Your task to perform on an android device: turn notification dots off Image 0: 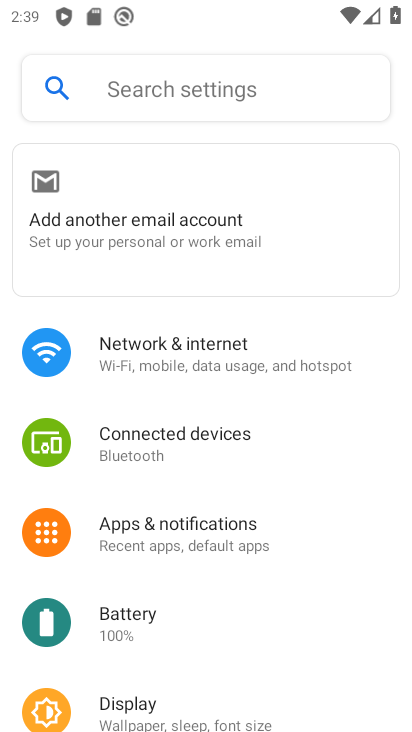
Step 0: press home button
Your task to perform on an android device: turn notification dots off Image 1: 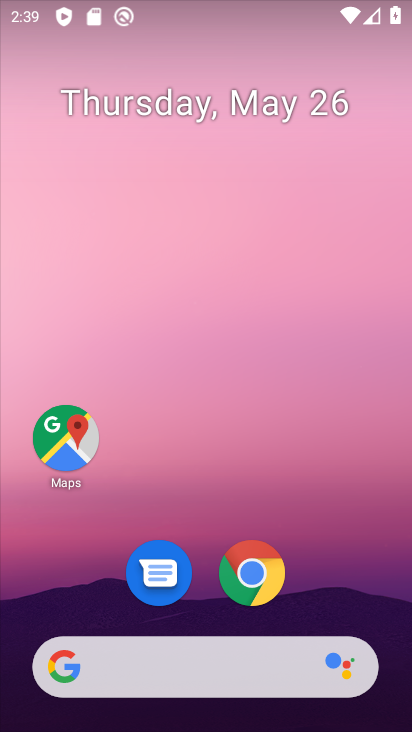
Step 1: drag from (222, 674) to (254, 242)
Your task to perform on an android device: turn notification dots off Image 2: 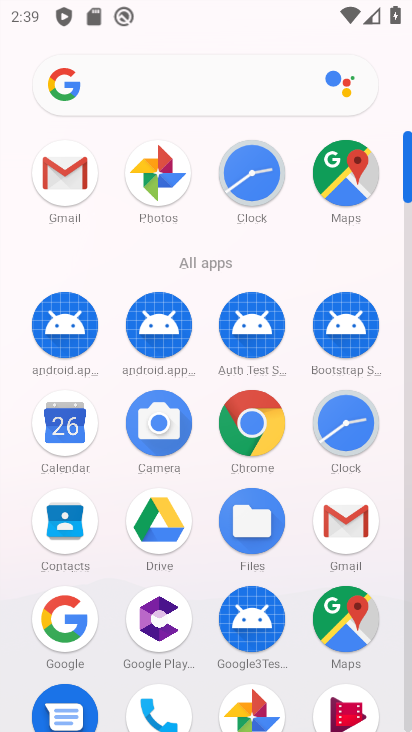
Step 2: drag from (198, 573) to (250, 32)
Your task to perform on an android device: turn notification dots off Image 3: 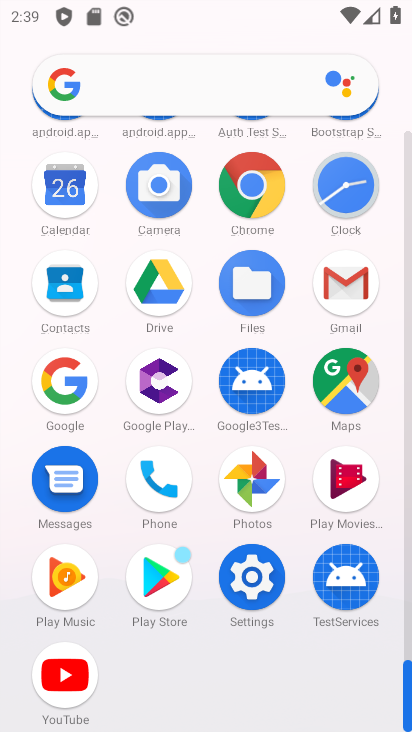
Step 3: click (243, 576)
Your task to perform on an android device: turn notification dots off Image 4: 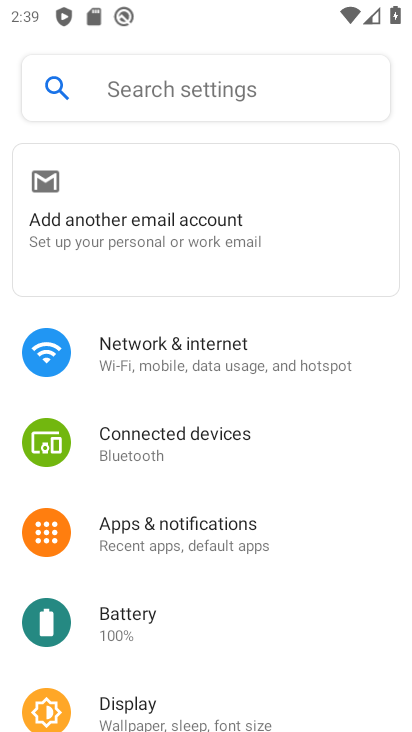
Step 4: click (212, 535)
Your task to perform on an android device: turn notification dots off Image 5: 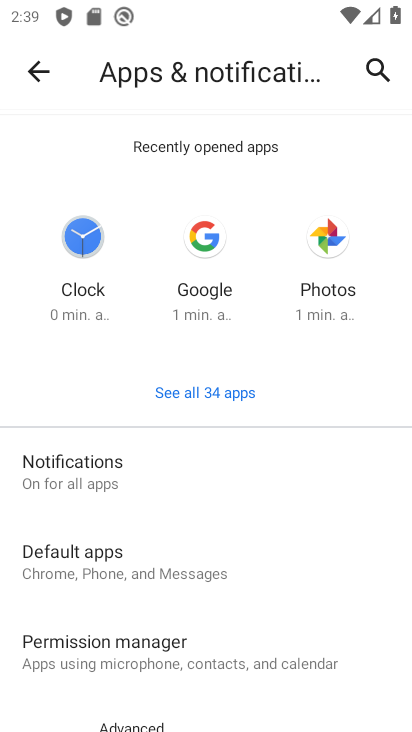
Step 5: click (171, 461)
Your task to perform on an android device: turn notification dots off Image 6: 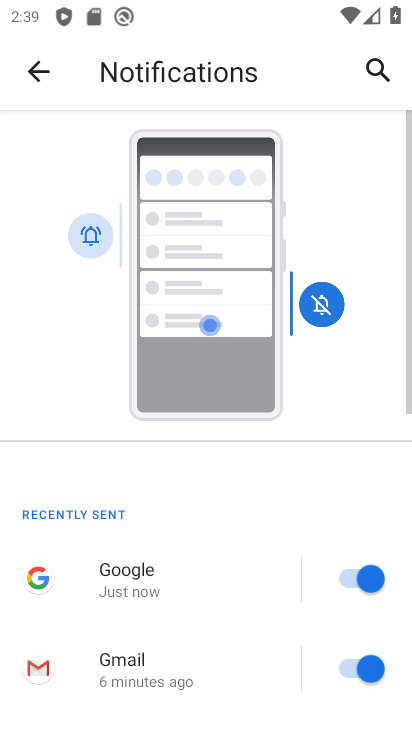
Step 6: drag from (262, 493) to (248, 146)
Your task to perform on an android device: turn notification dots off Image 7: 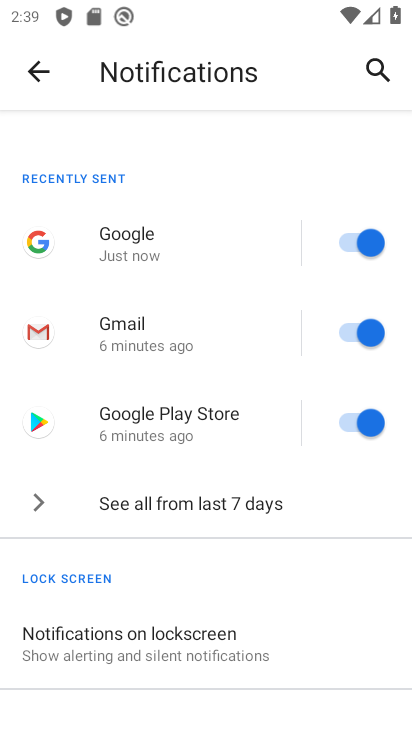
Step 7: drag from (177, 626) to (255, 217)
Your task to perform on an android device: turn notification dots off Image 8: 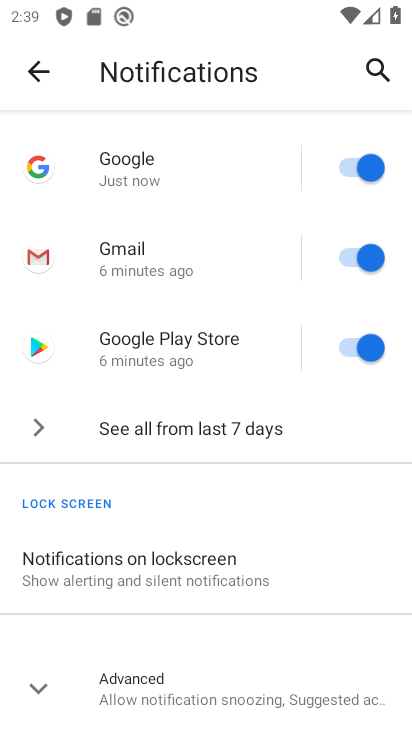
Step 8: click (140, 713)
Your task to perform on an android device: turn notification dots off Image 9: 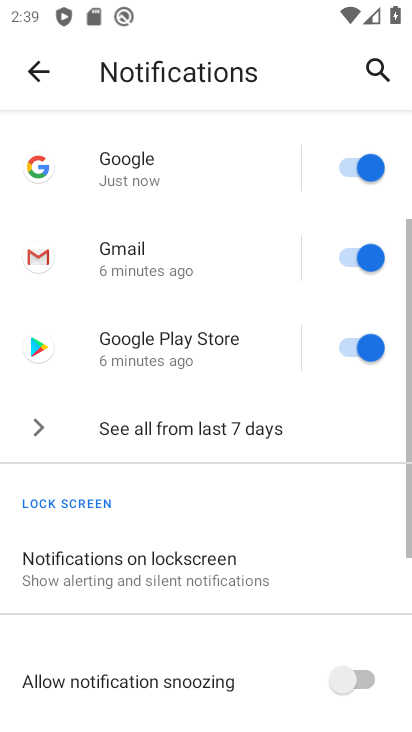
Step 9: drag from (208, 660) to (274, 273)
Your task to perform on an android device: turn notification dots off Image 10: 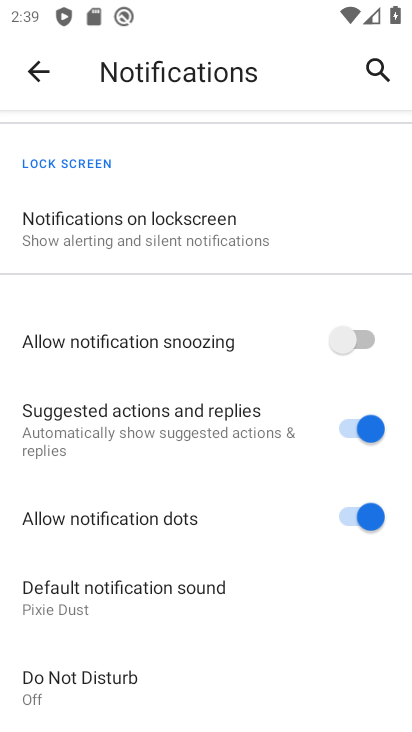
Step 10: click (368, 511)
Your task to perform on an android device: turn notification dots off Image 11: 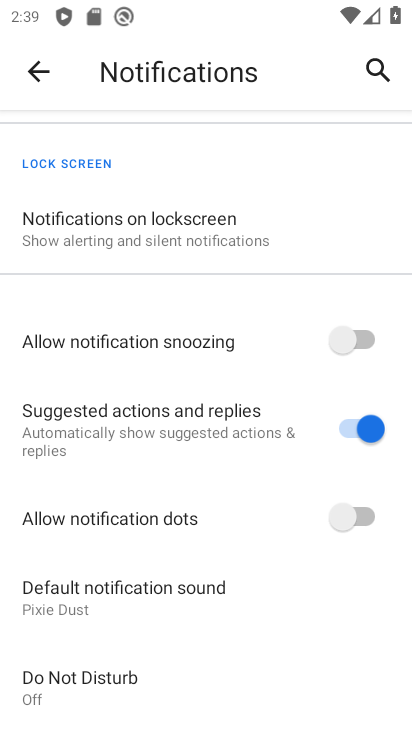
Step 11: task complete